Your task to perform on an android device: Open the stopwatch Image 0: 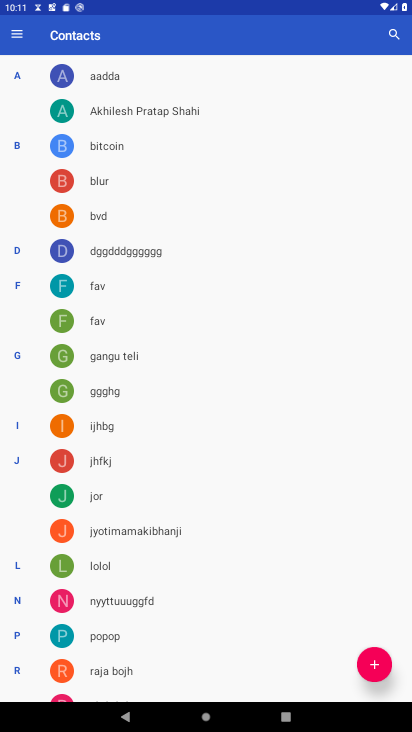
Step 0: press home button
Your task to perform on an android device: Open the stopwatch Image 1: 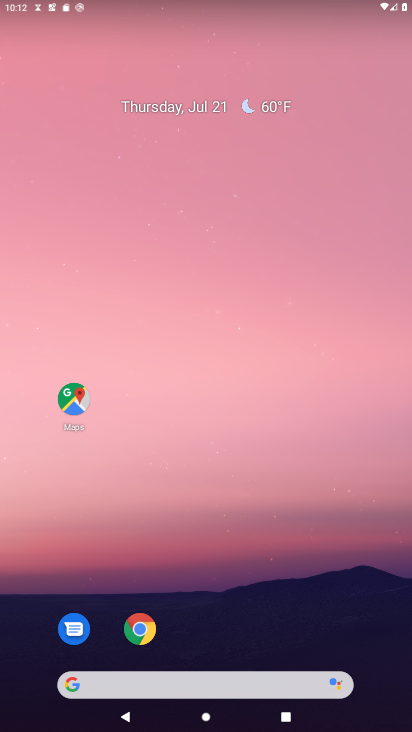
Step 1: drag from (209, 685) to (211, 319)
Your task to perform on an android device: Open the stopwatch Image 2: 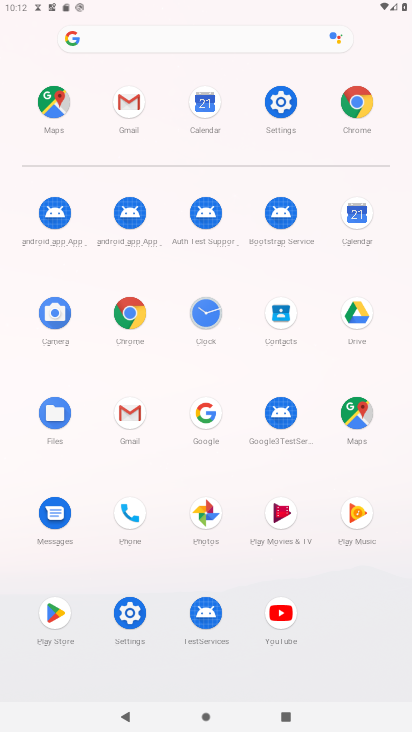
Step 2: click (194, 304)
Your task to perform on an android device: Open the stopwatch Image 3: 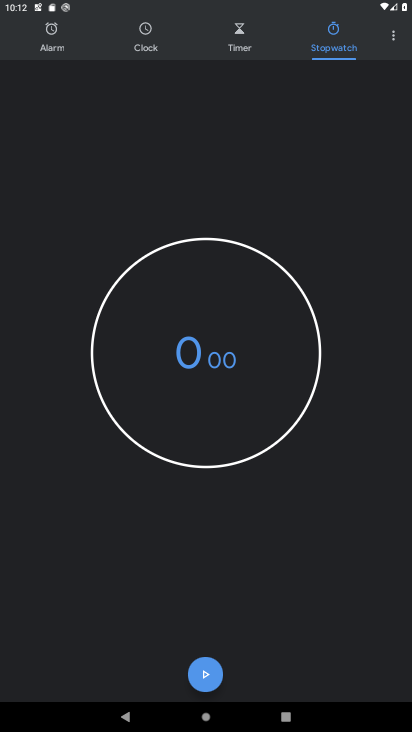
Step 3: task complete